Your task to perform on an android device: turn on sleep mode Image 0: 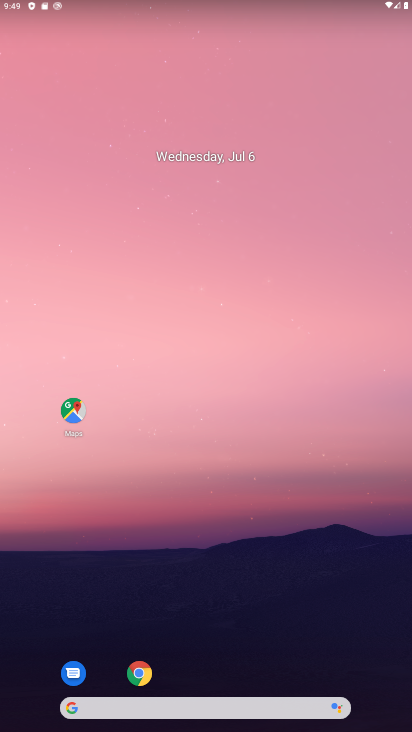
Step 0: drag from (316, 5) to (277, 364)
Your task to perform on an android device: turn on sleep mode Image 1: 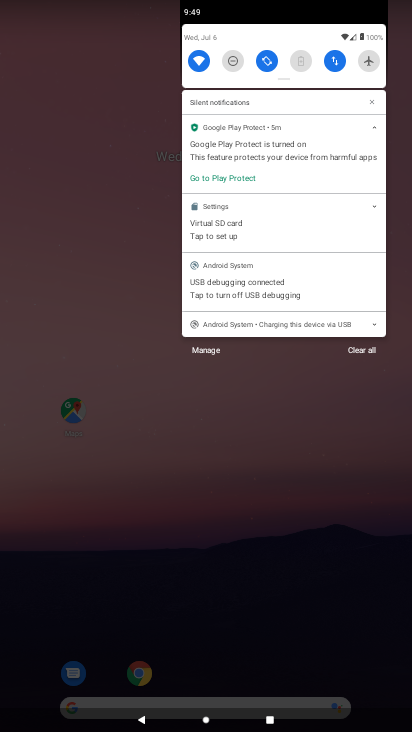
Step 1: drag from (308, 41) to (306, 226)
Your task to perform on an android device: turn on sleep mode Image 2: 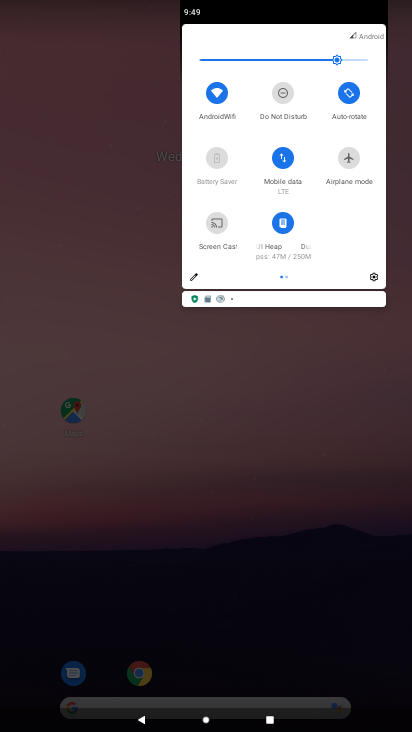
Step 2: click (370, 276)
Your task to perform on an android device: turn on sleep mode Image 3: 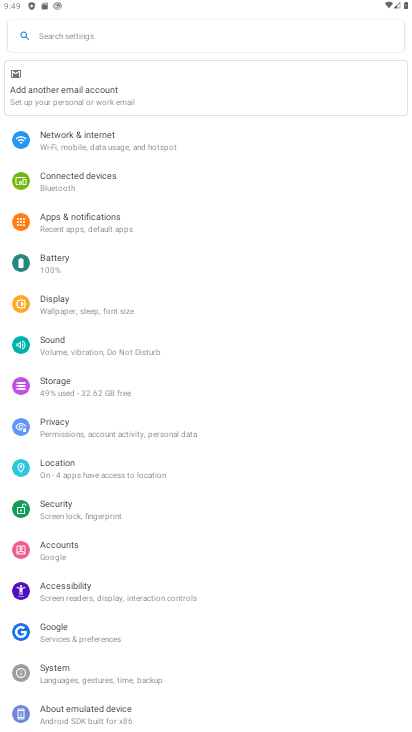
Step 3: task complete